Your task to perform on an android device: change the clock display to show seconds Image 0: 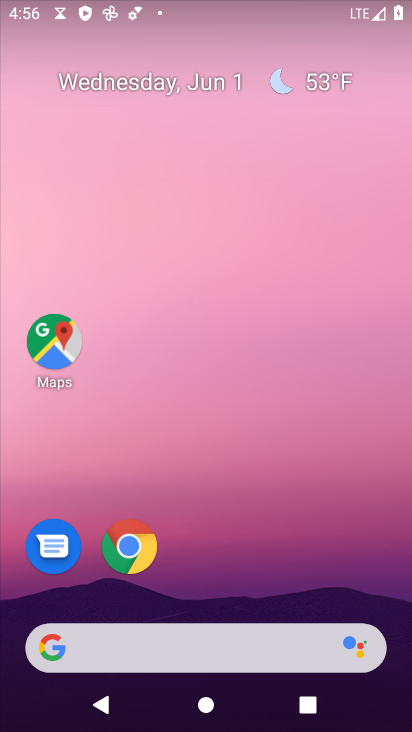
Step 0: drag from (259, 520) to (187, 5)
Your task to perform on an android device: change the clock display to show seconds Image 1: 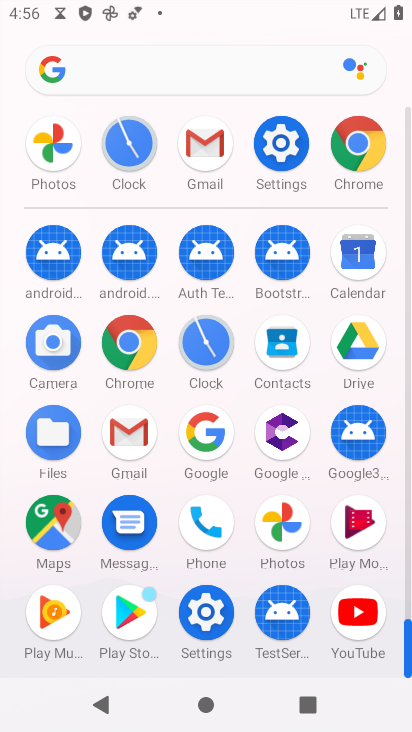
Step 1: drag from (7, 550) to (13, 217)
Your task to perform on an android device: change the clock display to show seconds Image 2: 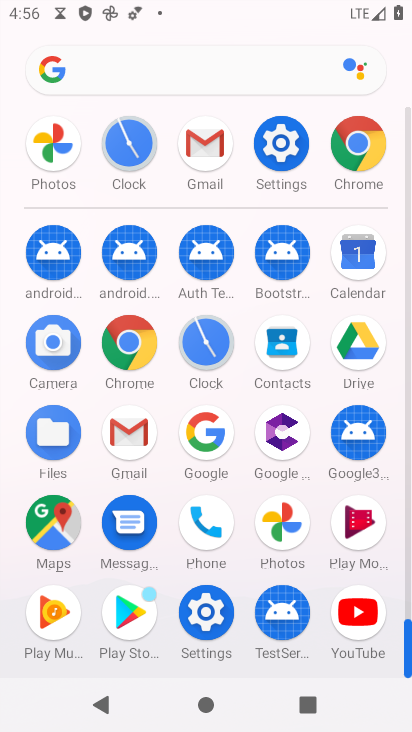
Step 2: click (200, 342)
Your task to perform on an android device: change the clock display to show seconds Image 3: 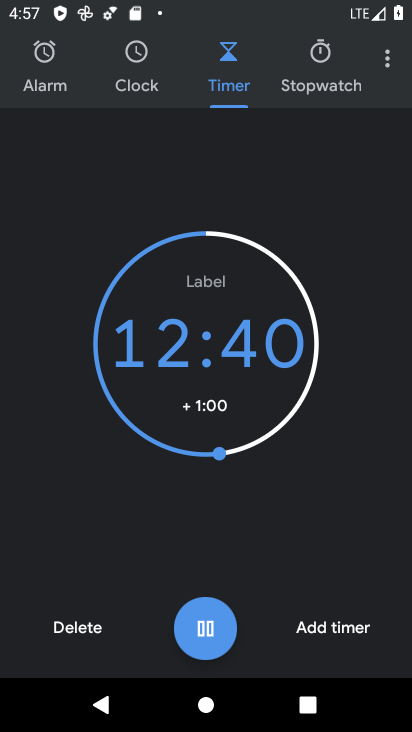
Step 3: drag from (384, 53) to (342, 118)
Your task to perform on an android device: change the clock display to show seconds Image 4: 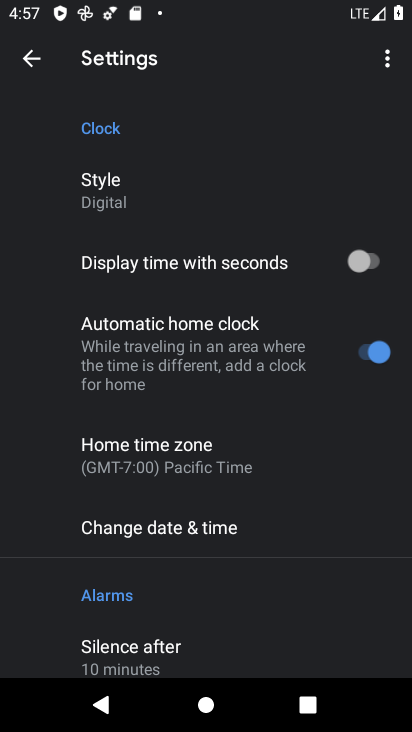
Step 4: click (363, 255)
Your task to perform on an android device: change the clock display to show seconds Image 5: 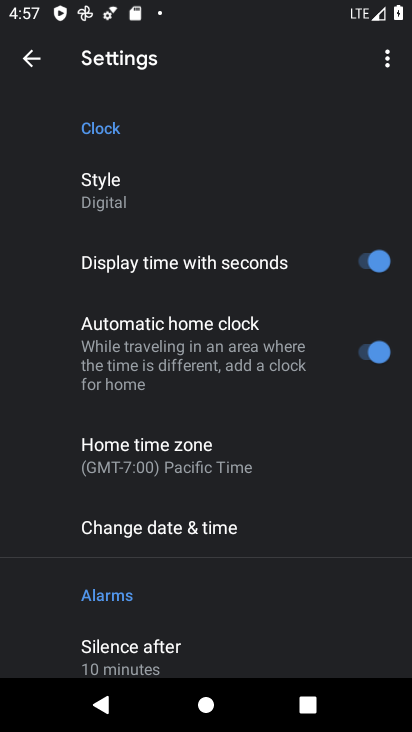
Step 5: task complete